Your task to perform on an android device: turn off sleep mode Image 0: 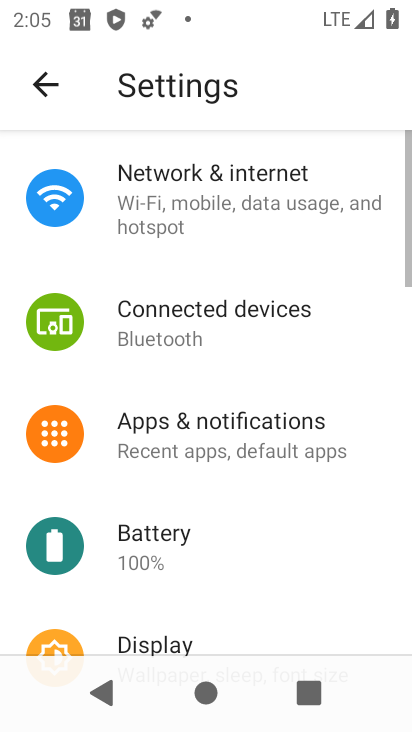
Step 0: press back button
Your task to perform on an android device: turn off sleep mode Image 1: 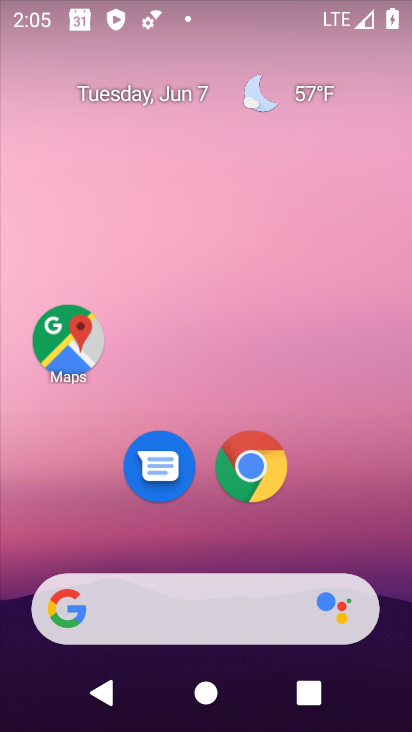
Step 1: drag from (186, 508) to (234, 57)
Your task to perform on an android device: turn off sleep mode Image 2: 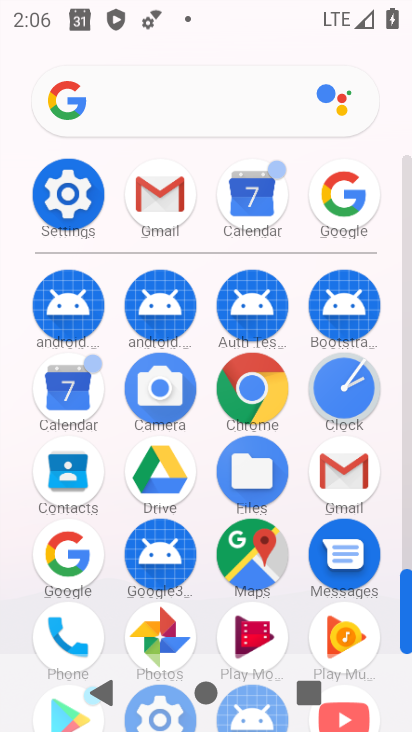
Step 2: click (70, 201)
Your task to perform on an android device: turn off sleep mode Image 3: 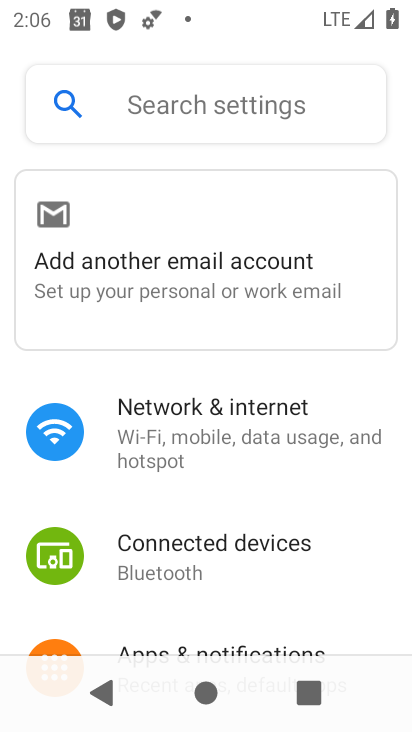
Step 3: click (138, 96)
Your task to perform on an android device: turn off sleep mode Image 4: 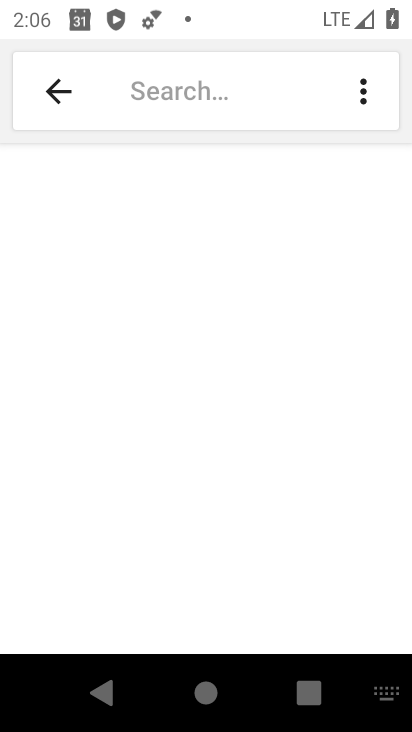
Step 4: type "sleep mode"
Your task to perform on an android device: turn off sleep mode Image 5: 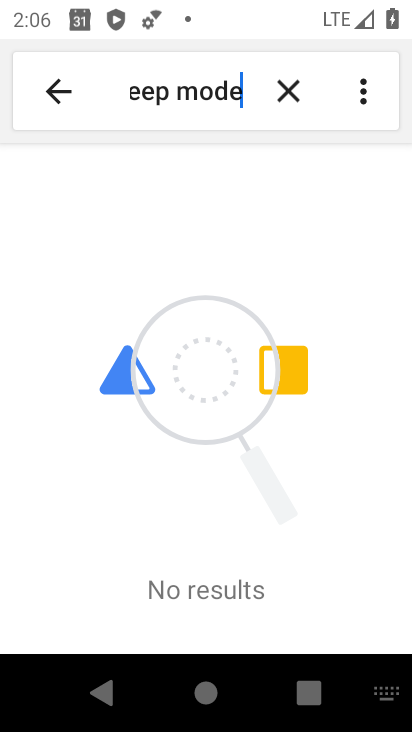
Step 5: task complete